Your task to perform on an android device: allow cookies in the chrome app Image 0: 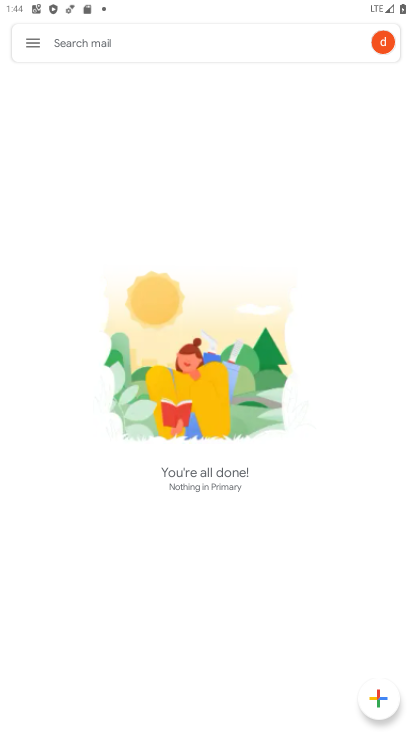
Step 0: press home button
Your task to perform on an android device: allow cookies in the chrome app Image 1: 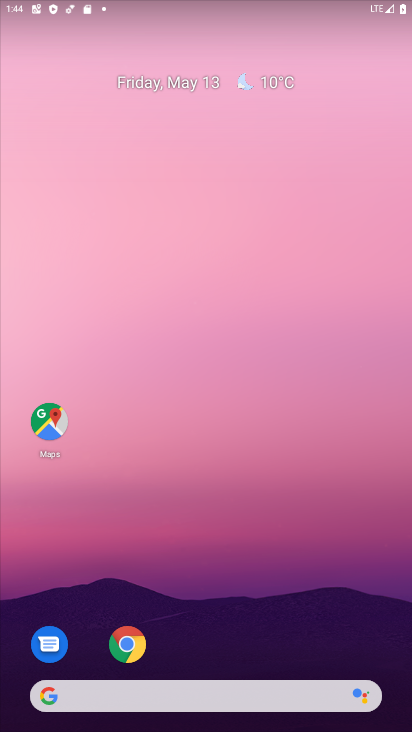
Step 1: drag from (253, 670) to (335, 0)
Your task to perform on an android device: allow cookies in the chrome app Image 2: 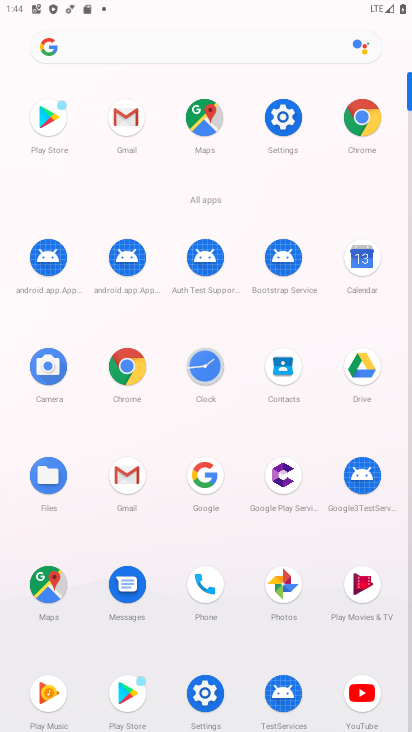
Step 2: click (123, 371)
Your task to perform on an android device: allow cookies in the chrome app Image 3: 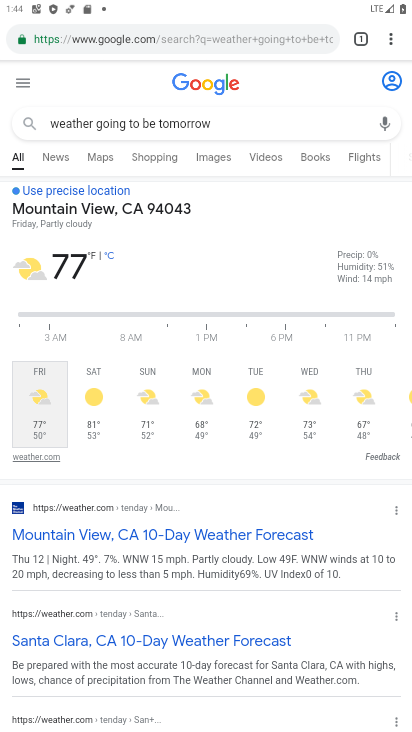
Step 3: drag from (388, 35) to (253, 454)
Your task to perform on an android device: allow cookies in the chrome app Image 4: 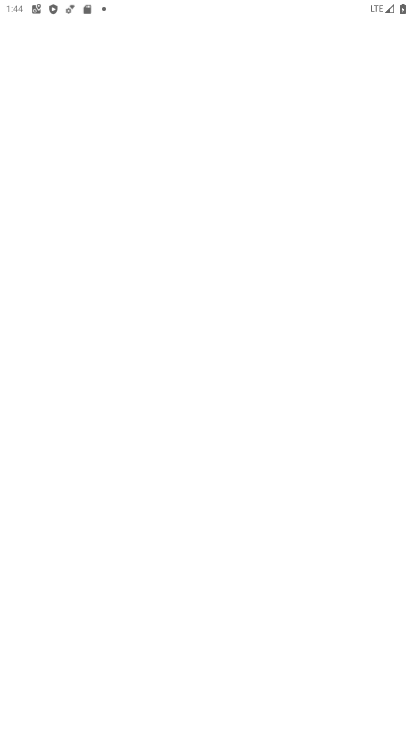
Step 4: drag from (385, 37) to (326, 249)
Your task to perform on an android device: allow cookies in the chrome app Image 5: 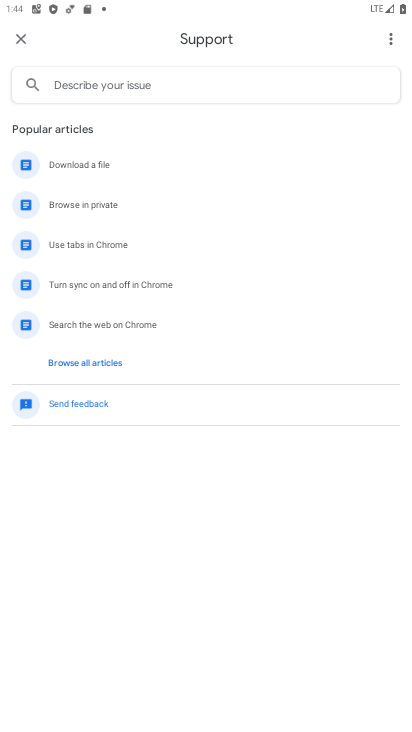
Step 5: press back button
Your task to perform on an android device: allow cookies in the chrome app Image 6: 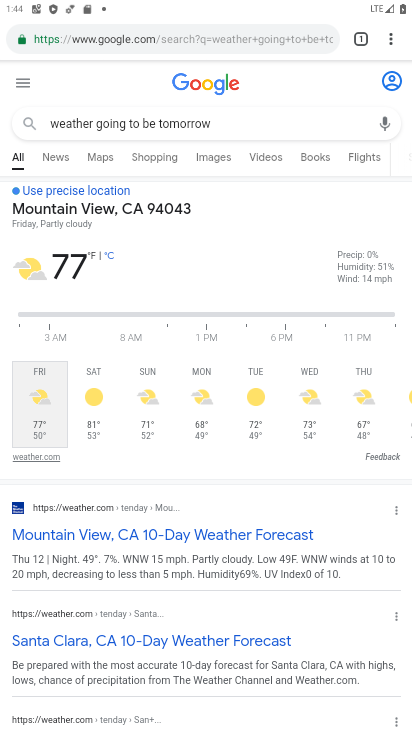
Step 6: click (388, 39)
Your task to perform on an android device: allow cookies in the chrome app Image 7: 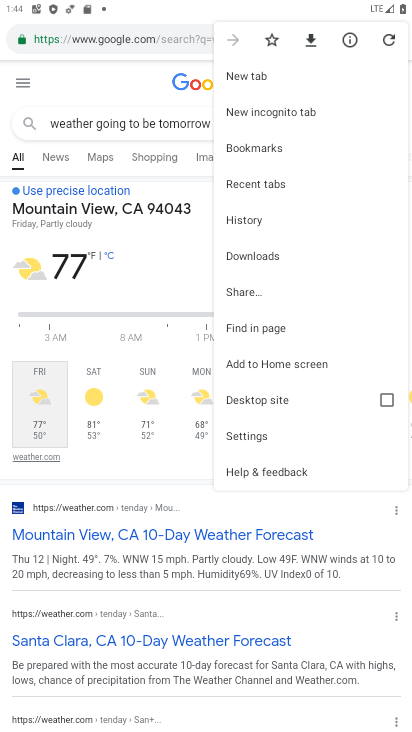
Step 7: click (255, 438)
Your task to perform on an android device: allow cookies in the chrome app Image 8: 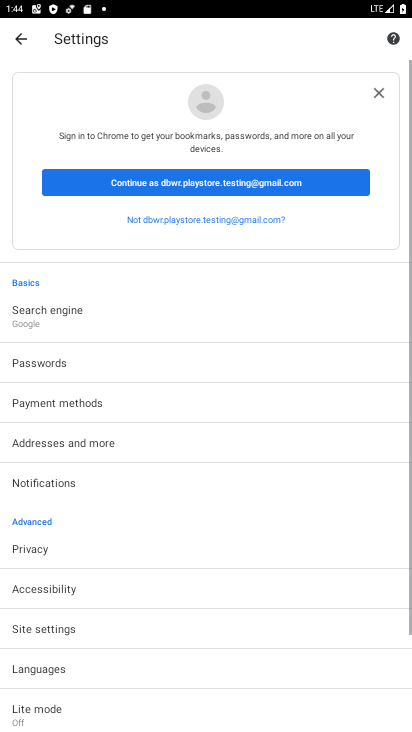
Step 8: click (69, 637)
Your task to perform on an android device: allow cookies in the chrome app Image 9: 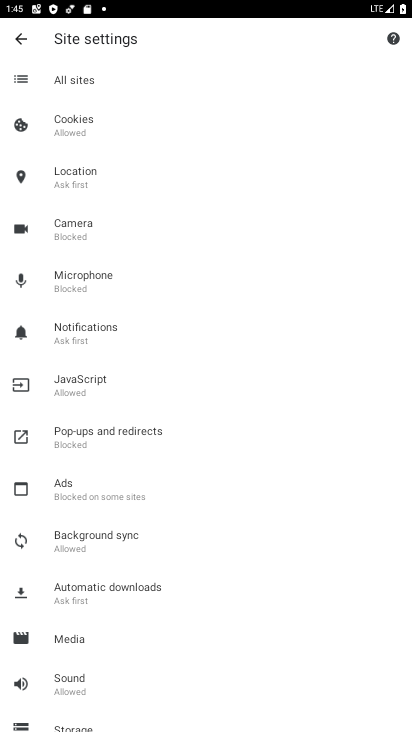
Step 9: click (90, 124)
Your task to perform on an android device: allow cookies in the chrome app Image 10: 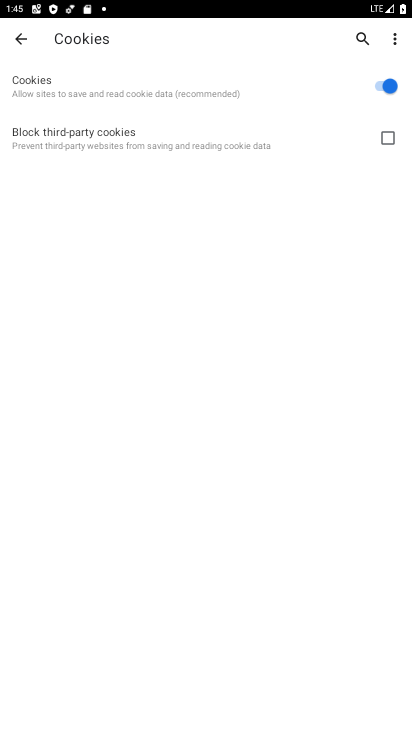
Step 10: task complete